Your task to perform on an android device: Add logitech g910 to the cart on newegg.com, then select checkout. Image 0: 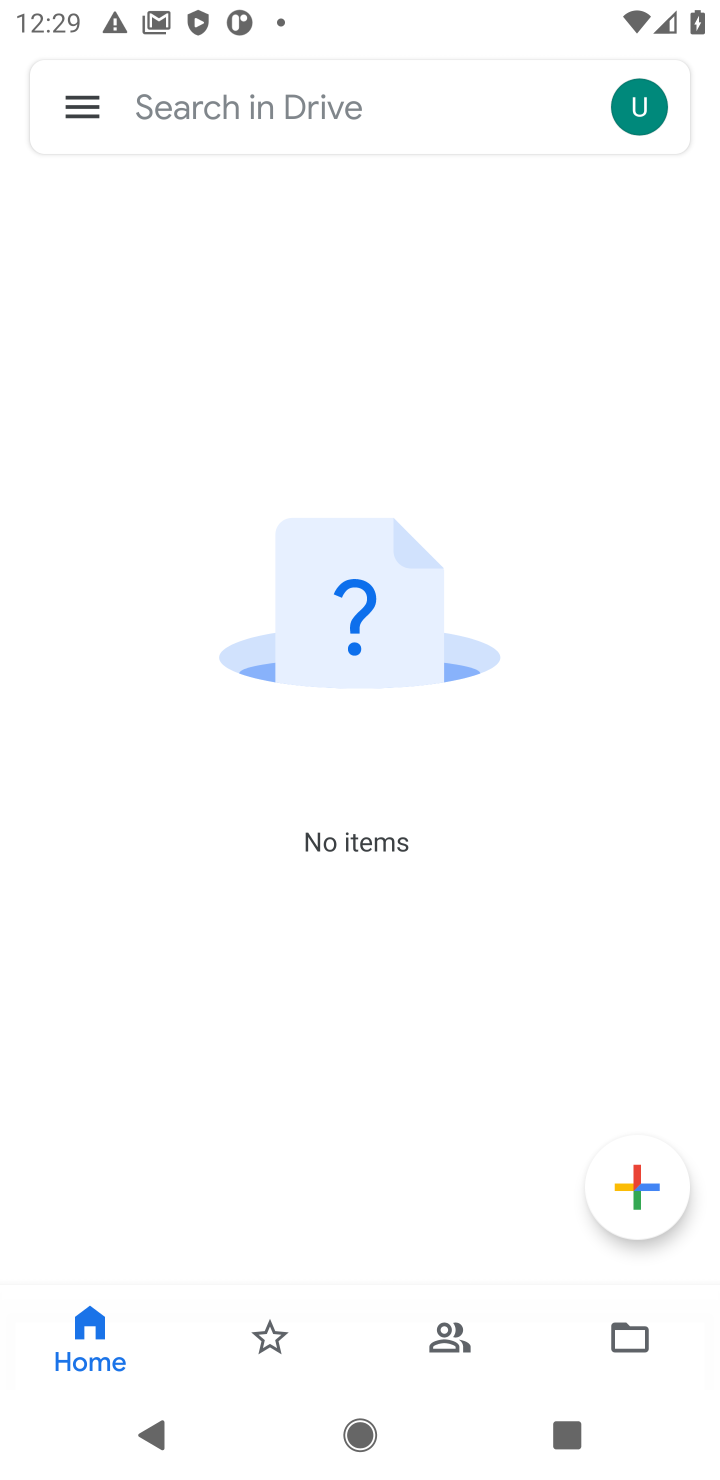
Step 0: task complete